Your task to perform on an android device: add a contact Image 0: 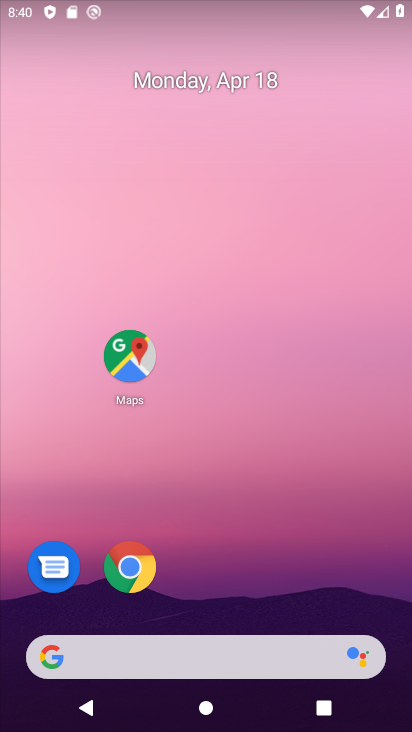
Step 0: click (187, 198)
Your task to perform on an android device: add a contact Image 1: 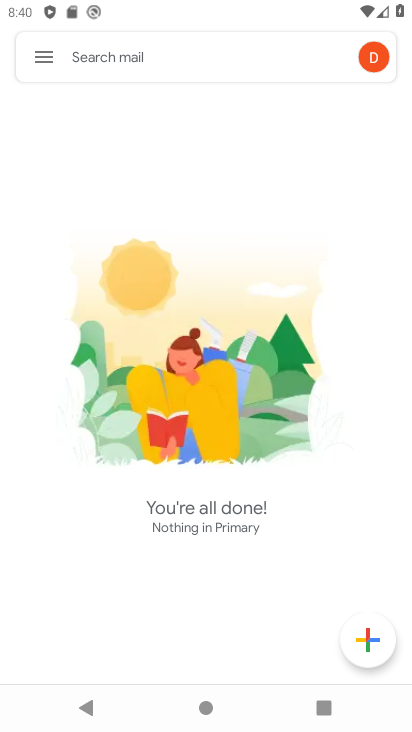
Step 1: press home button
Your task to perform on an android device: add a contact Image 2: 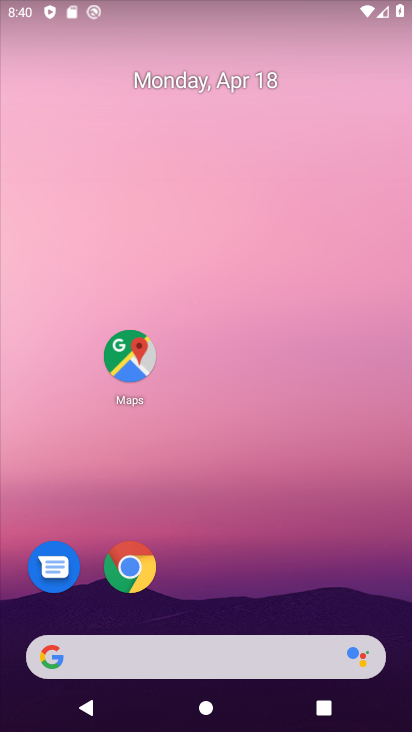
Step 2: drag from (288, 684) to (246, 251)
Your task to perform on an android device: add a contact Image 3: 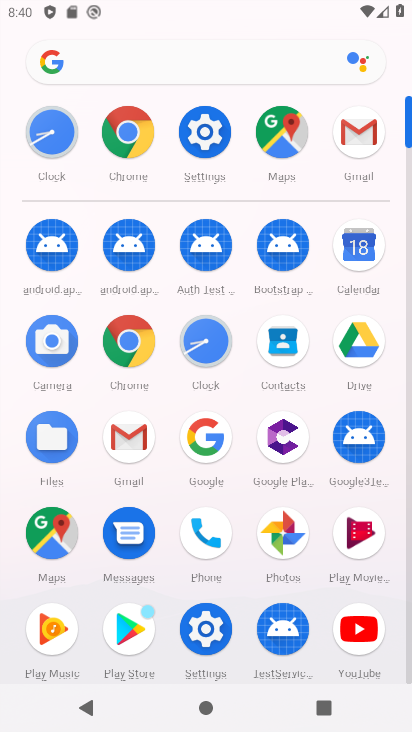
Step 3: click (199, 508)
Your task to perform on an android device: add a contact Image 4: 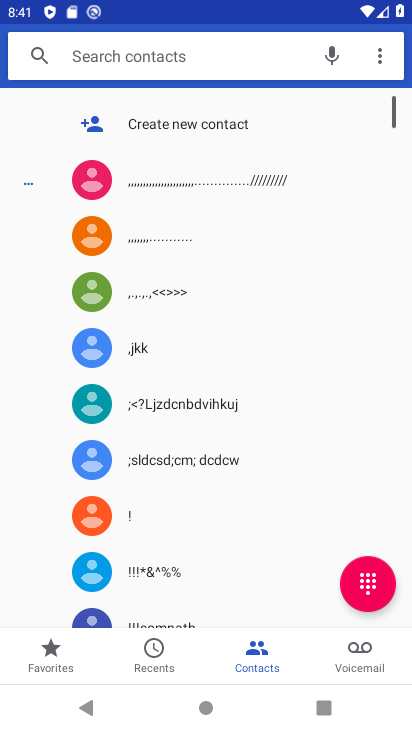
Step 4: click (171, 135)
Your task to perform on an android device: add a contact Image 5: 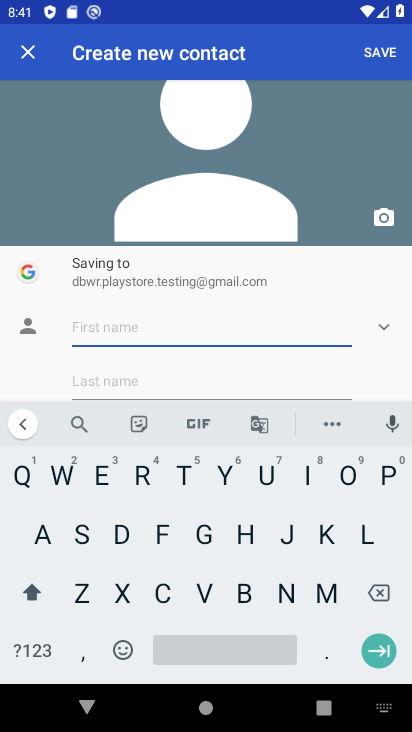
Step 5: click (138, 474)
Your task to perform on an android device: add a contact Image 6: 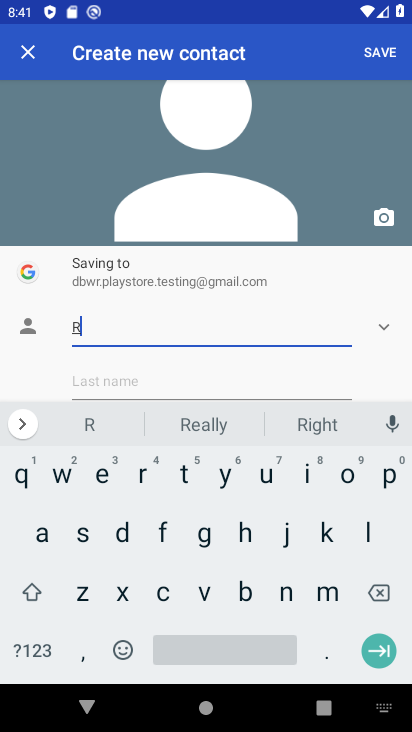
Step 6: click (66, 472)
Your task to perform on an android device: add a contact Image 7: 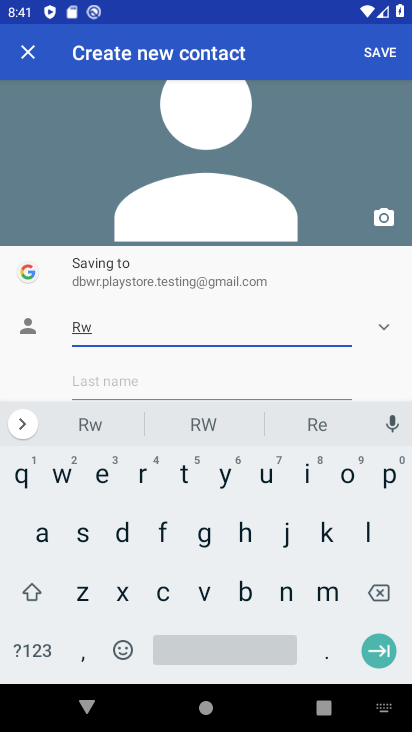
Step 7: click (88, 581)
Your task to perform on an android device: add a contact Image 8: 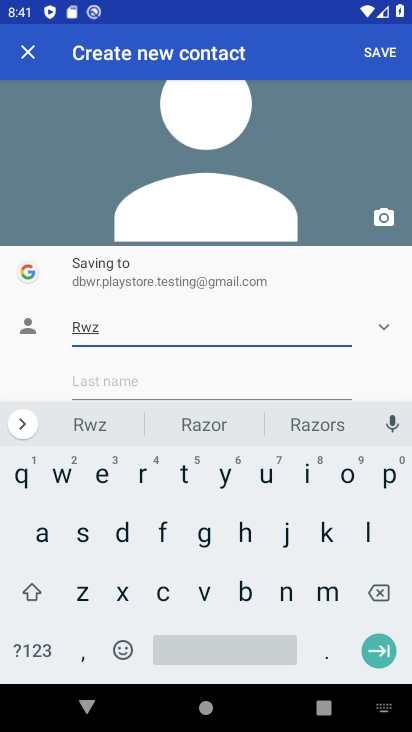
Step 8: drag from (182, 363) to (192, 106)
Your task to perform on an android device: add a contact Image 9: 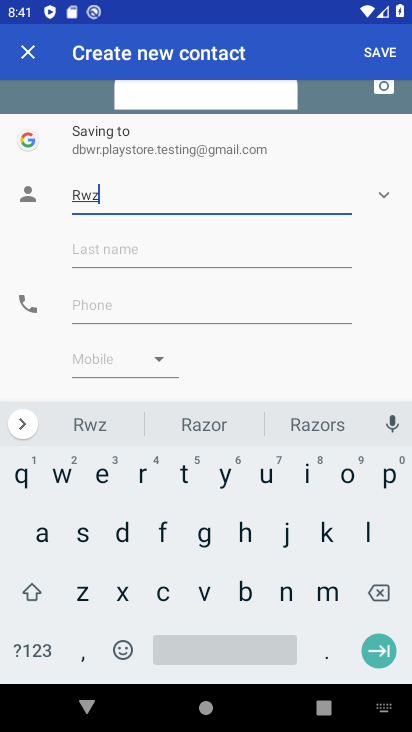
Step 9: click (124, 315)
Your task to perform on an android device: add a contact Image 10: 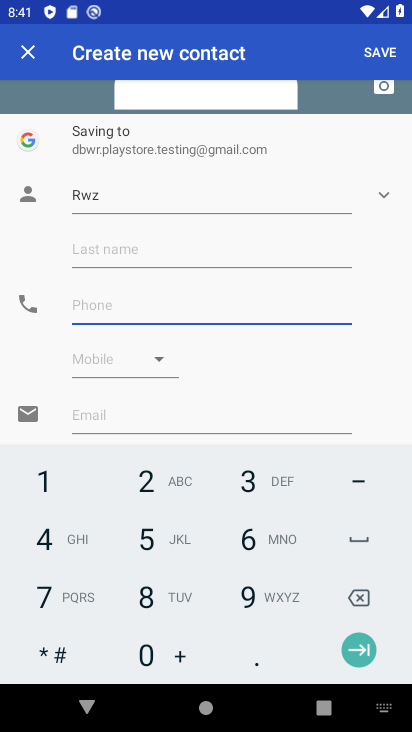
Step 10: click (244, 495)
Your task to perform on an android device: add a contact Image 11: 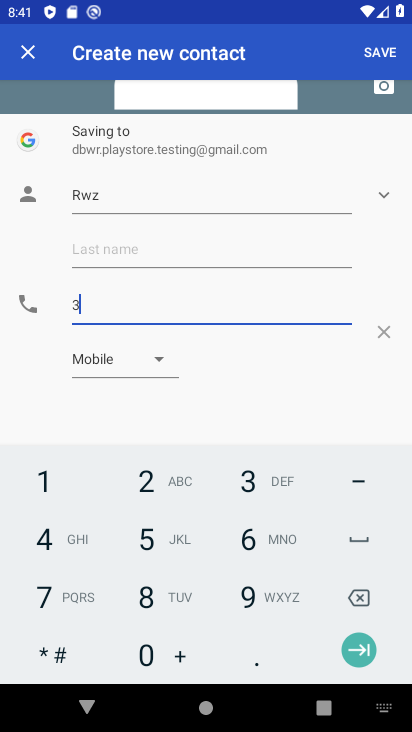
Step 11: click (253, 537)
Your task to perform on an android device: add a contact Image 12: 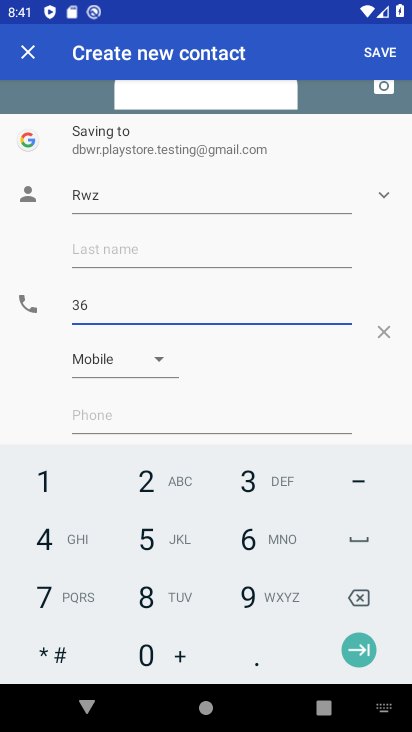
Step 12: click (158, 598)
Your task to perform on an android device: add a contact Image 13: 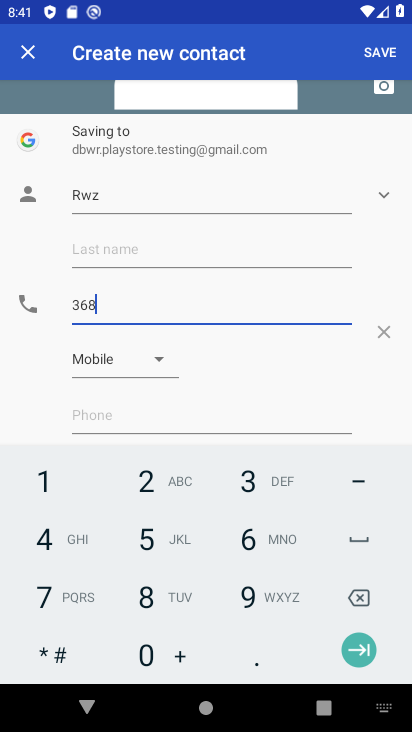
Step 13: click (140, 523)
Your task to perform on an android device: add a contact Image 14: 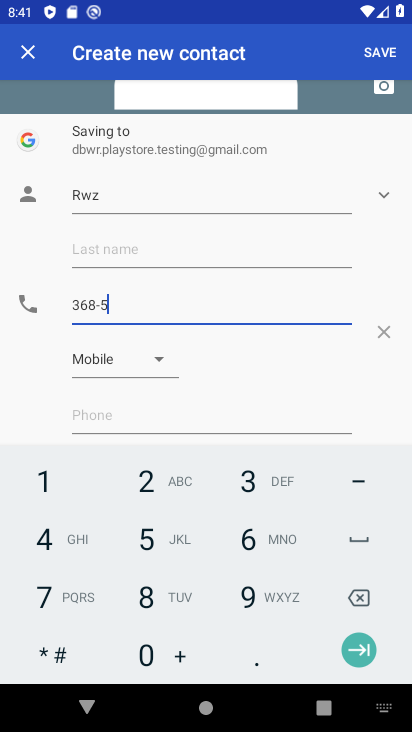
Step 14: click (59, 546)
Your task to perform on an android device: add a contact Image 15: 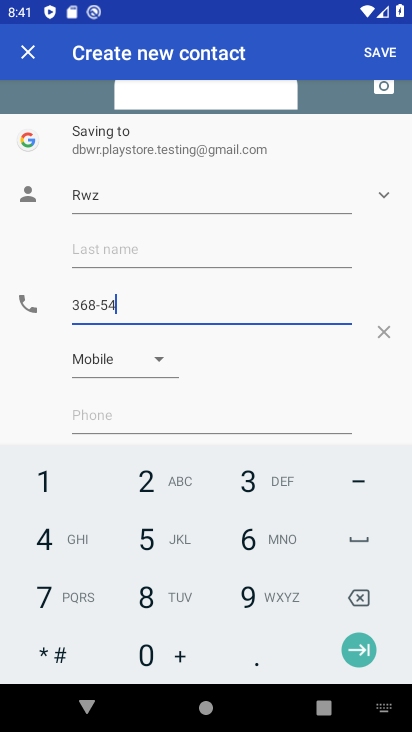
Step 15: click (62, 578)
Your task to perform on an android device: add a contact Image 16: 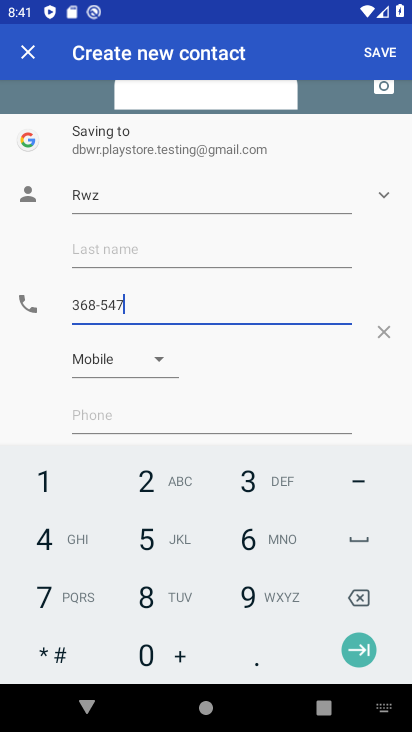
Step 16: click (366, 44)
Your task to perform on an android device: add a contact Image 17: 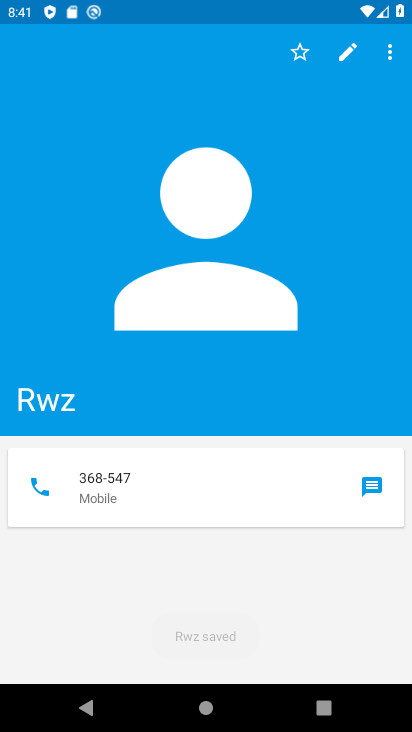
Step 17: task complete